Your task to perform on an android device: turn on data saver in the chrome app Image 0: 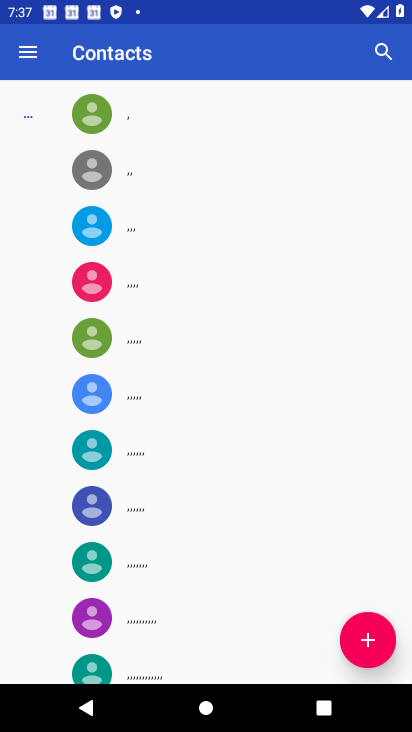
Step 0: press home button
Your task to perform on an android device: turn on data saver in the chrome app Image 1: 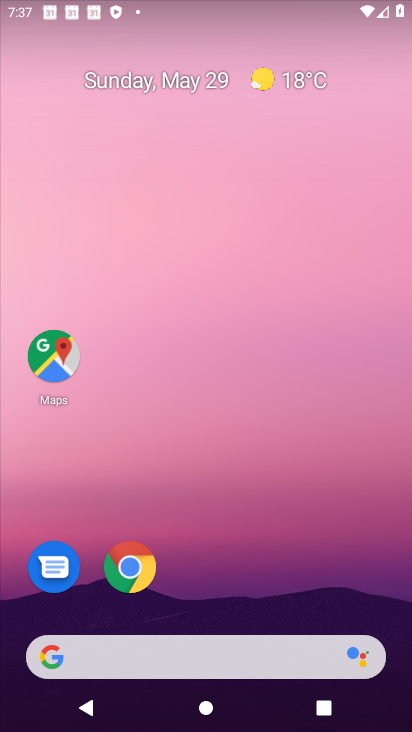
Step 1: click (132, 567)
Your task to perform on an android device: turn on data saver in the chrome app Image 2: 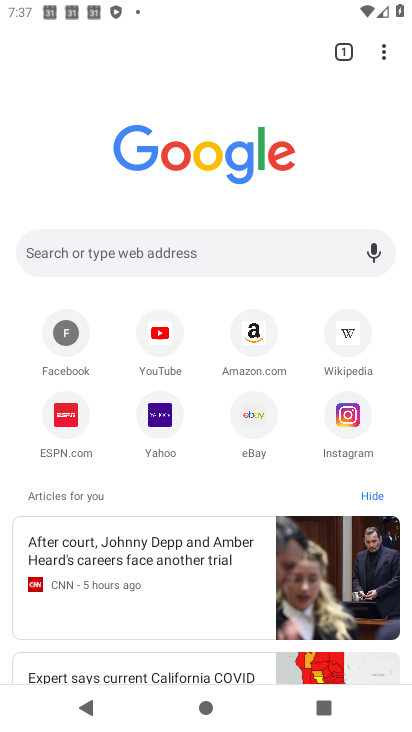
Step 2: click (385, 50)
Your task to perform on an android device: turn on data saver in the chrome app Image 3: 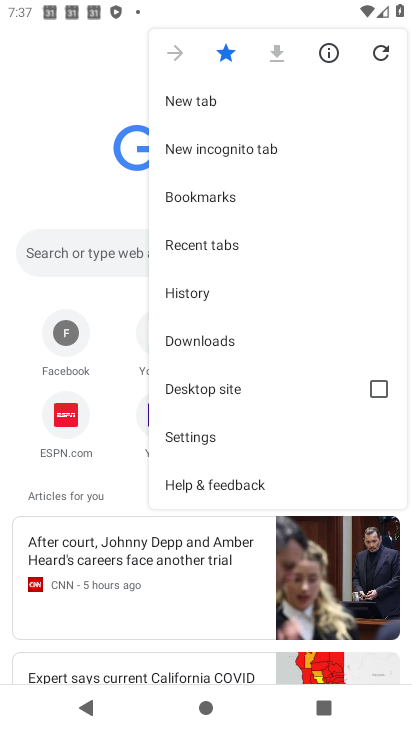
Step 3: click (199, 440)
Your task to perform on an android device: turn on data saver in the chrome app Image 4: 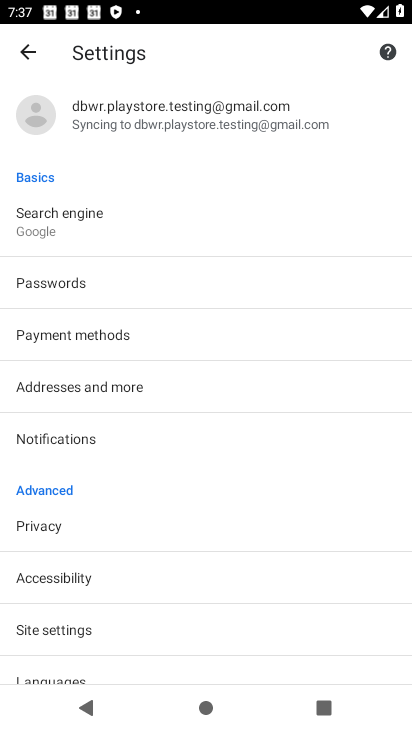
Step 4: drag from (116, 495) to (146, 414)
Your task to perform on an android device: turn on data saver in the chrome app Image 5: 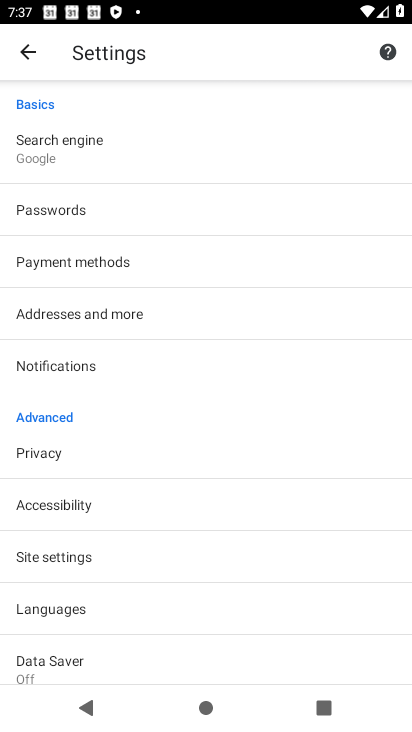
Step 5: drag from (129, 587) to (171, 509)
Your task to perform on an android device: turn on data saver in the chrome app Image 6: 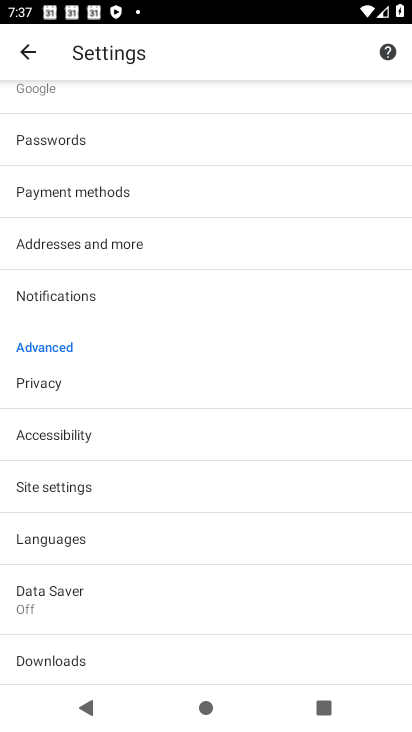
Step 6: click (67, 591)
Your task to perform on an android device: turn on data saver in the chrome app Image 7: 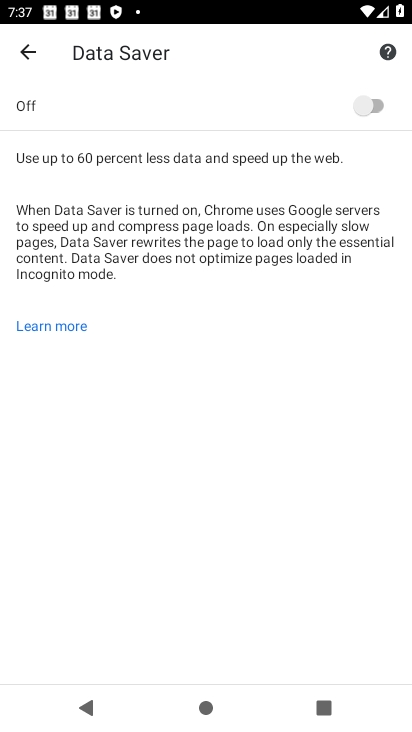
Step 7: click (358, 109)
Your task to perform on an android device: turn on data saver in the chrome app Image 8: 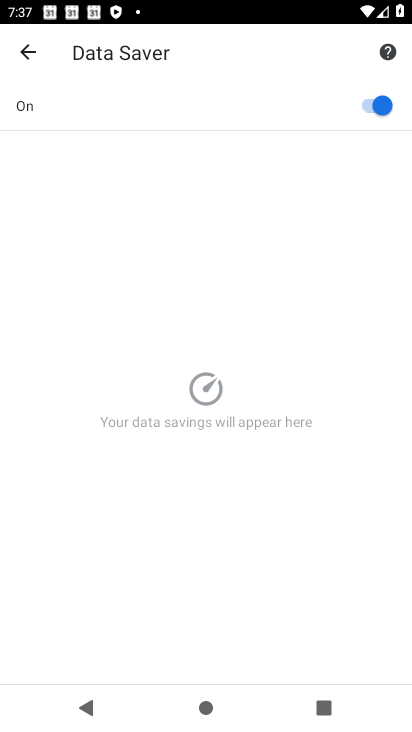
Step 8: task complete